Your task to perform on an android device: add a contact Image 0: 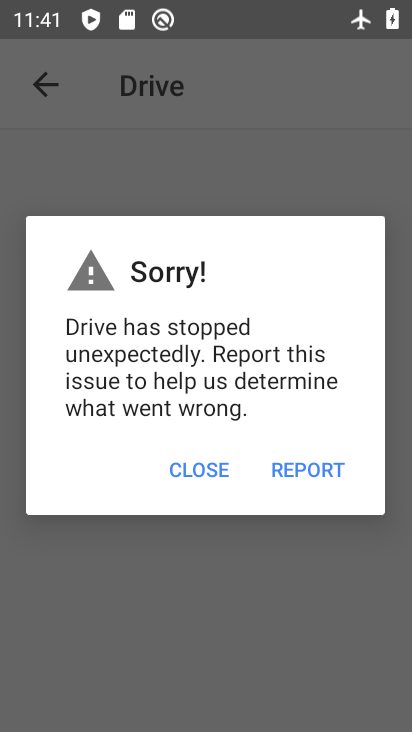
Step 0: press home button
Your task to perform on an android device: add a contact Image 1: 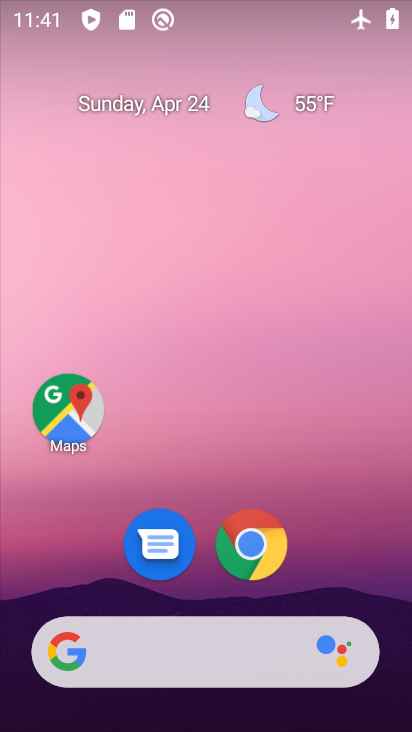
Step 1: drag from (312, 534) to (197, 82)
Your task to perform on an android device: add a contact Image 2: 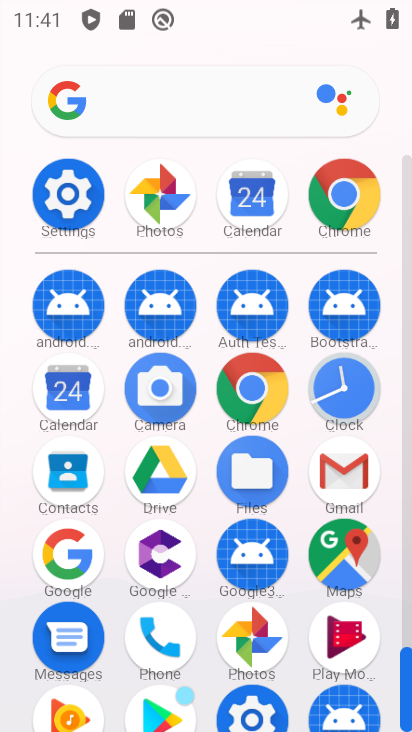
Step 2: click (63, 481)
Your task to perform on an android device: add a contact Image 3: 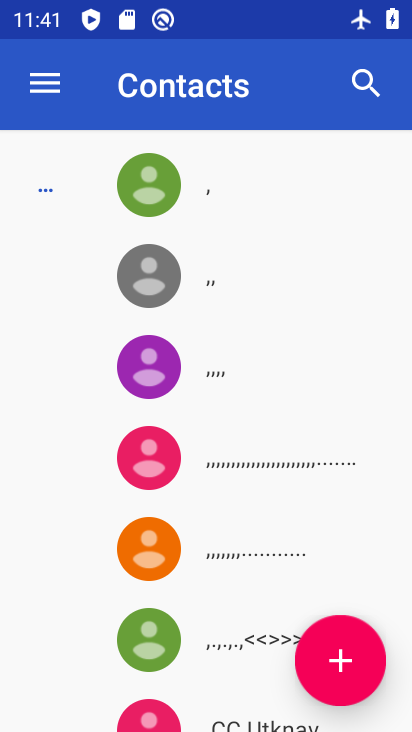
Step 3: click (326, 650)
Your task to perform on an android device: add a contact Image 4: 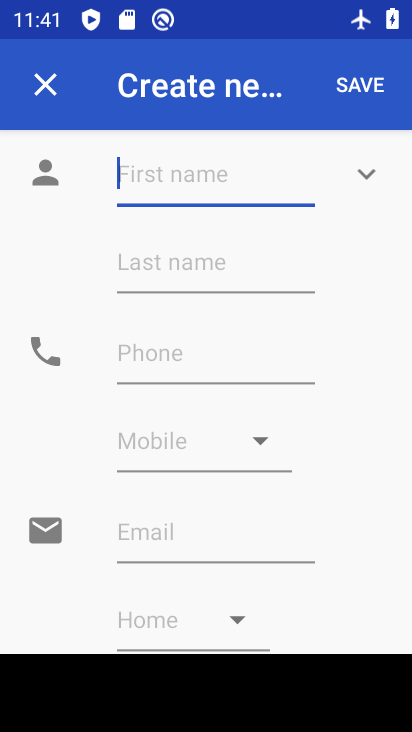
Step 4: click (158, 177)
Your task to perform on an android device: add a contact Image 5: 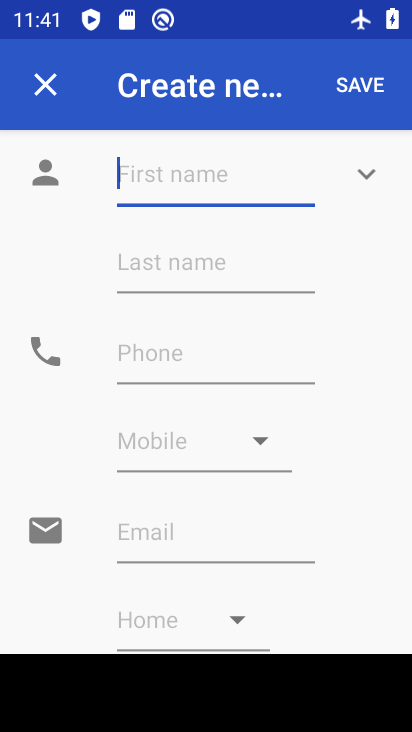
Step 5: type "pria"
Your task to perform on an android device: add a contact Image 6: 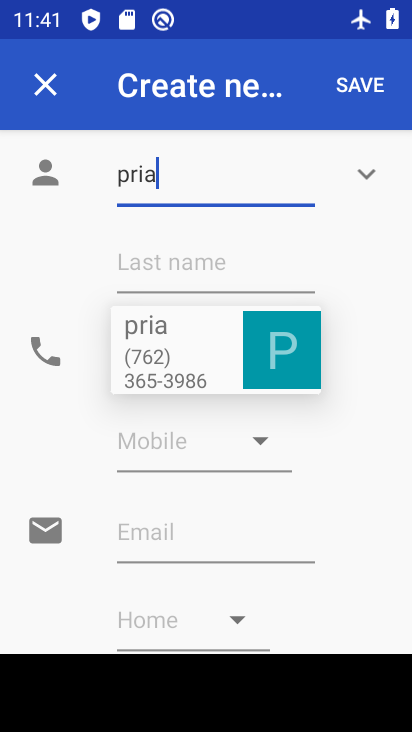
Step 6: click (183, 269)
Your task to perform on an android device: add a contact Image 7: 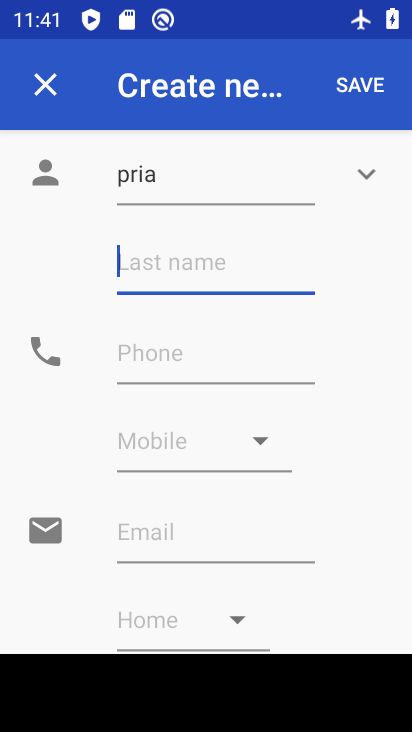
Step 7: type "gaba"
Your task to perform on an android device: add a contact Image 8: 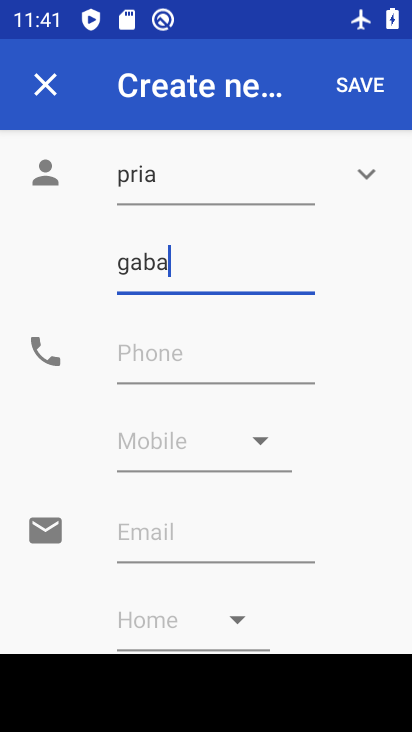
Step 8: click (146, 345)
Your task to perform on an android device: add a contact Image 9: 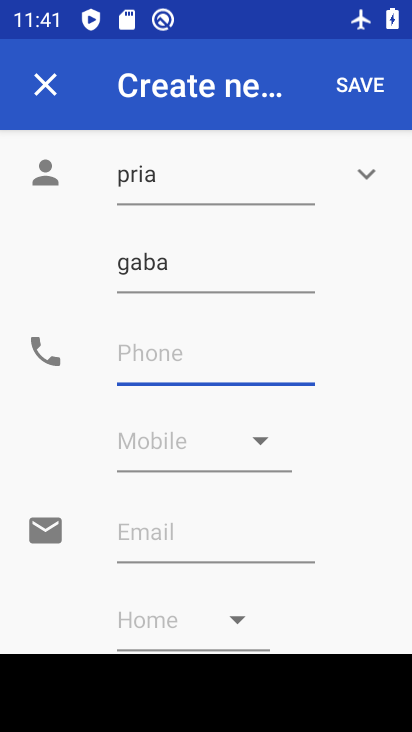
Step 9: click (164, 451)
Your task to perform on an android device: add a contact Image 10: 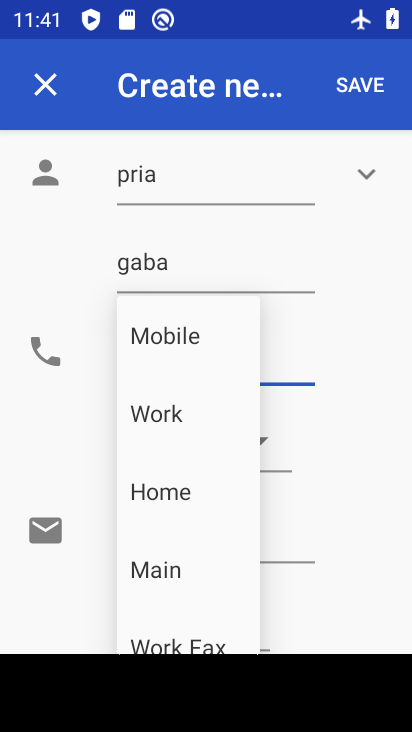
Step 10: click (184, 338)
Your task to perform on an android device: add a contact Image 11: 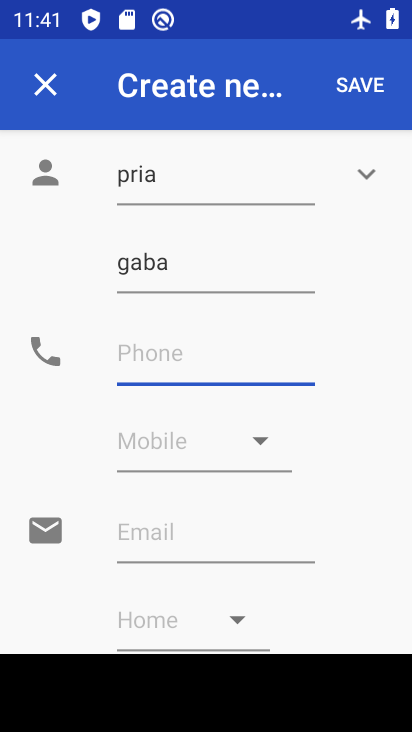
Step 11: click (184, 338)
Your task to perform on an android device: add a contact Image 12: 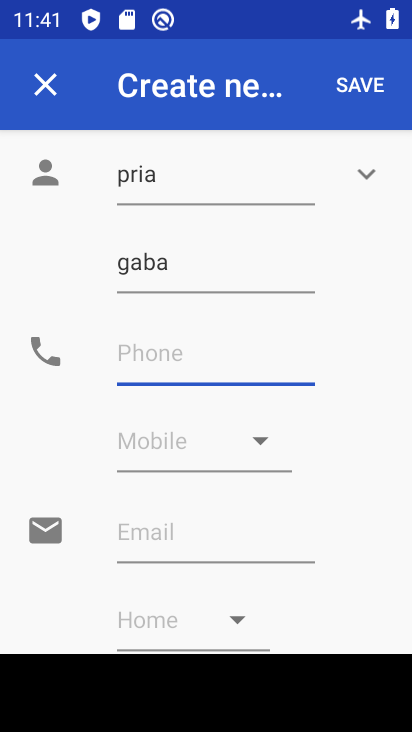
Step 12: type "623863255"
Your task to perform on an android device: add a contact Image 13: 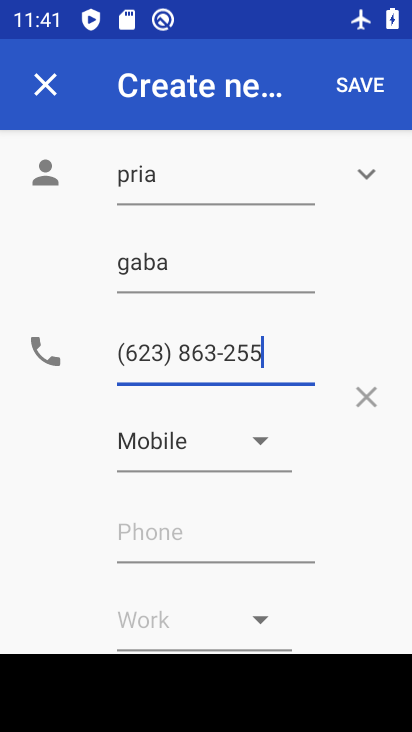
Step 13: type "5"
Your task to perform on an android device: add a contact Image 14: 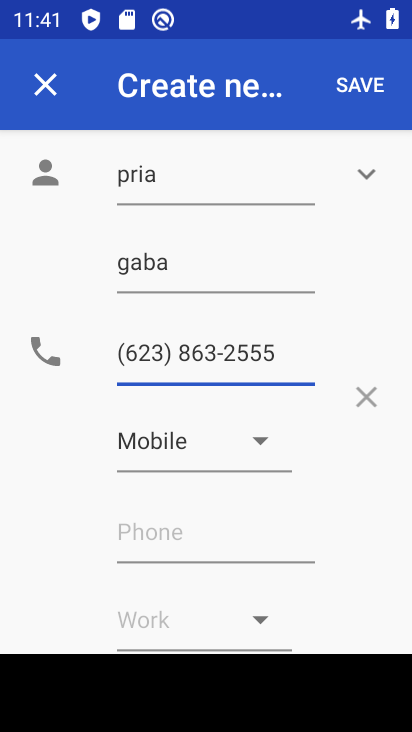
Step 14: click (356, 86)
Your task to perform on an android device: add a contact Image 15: 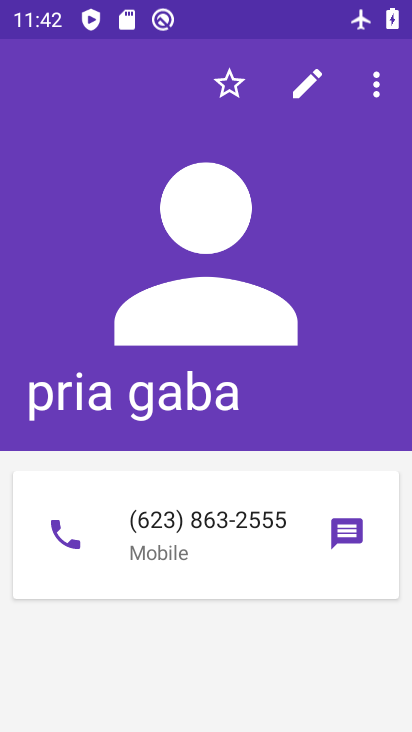
Step 15: task complete